Your task to perform on an android device: check storage Image 0: 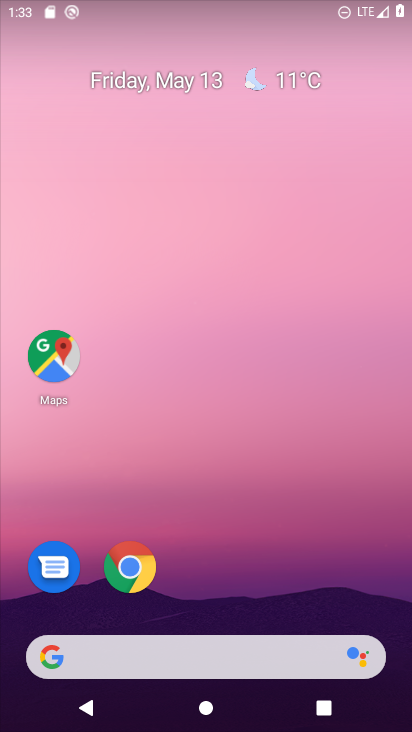
Step 0: drag from (216, 610) to (210, 95)
Your task to perform on an android device: check storage Image 1: 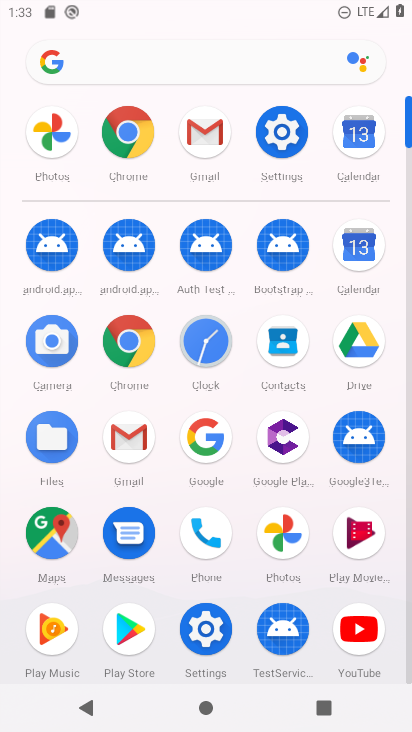
Step 1: click (280, 119)
Your task to perform on an android device: check storage Image 2: 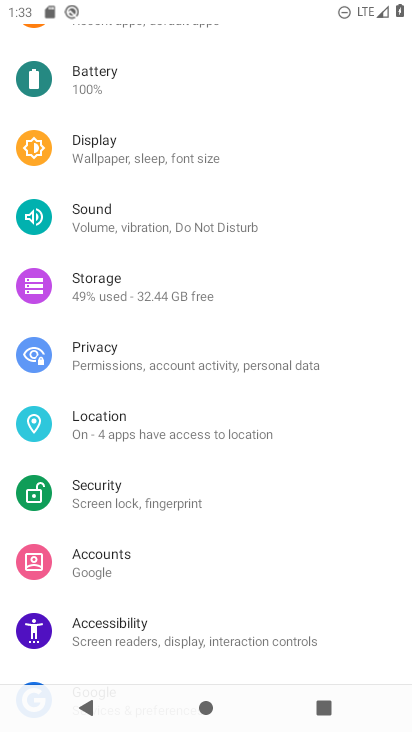
Step 2: click (130, 281)
Your task to perform on an android device: check storage Image 3: 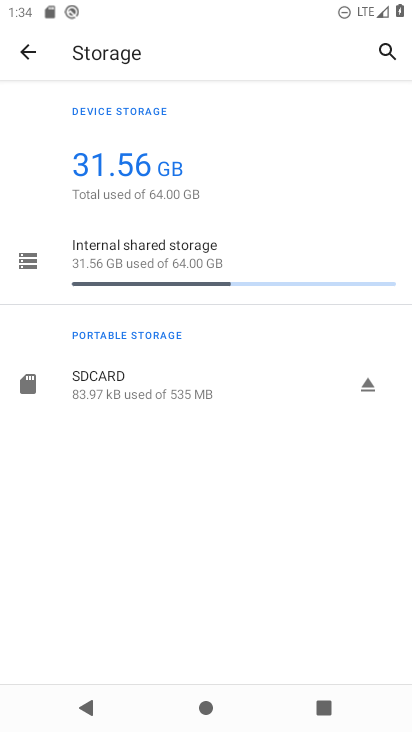
Step 3: task complete